Your task to perform on an android device: check battery use Image 0: 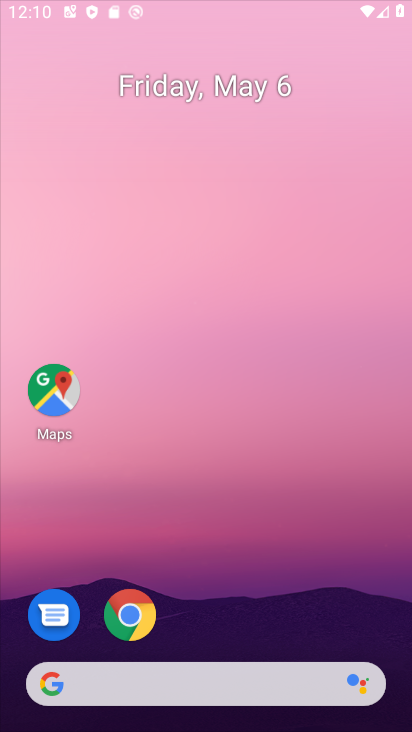
Step 0: drag from (280, 560) to (242, 162)
Your task to perform on an android device: check battery use Image 1: 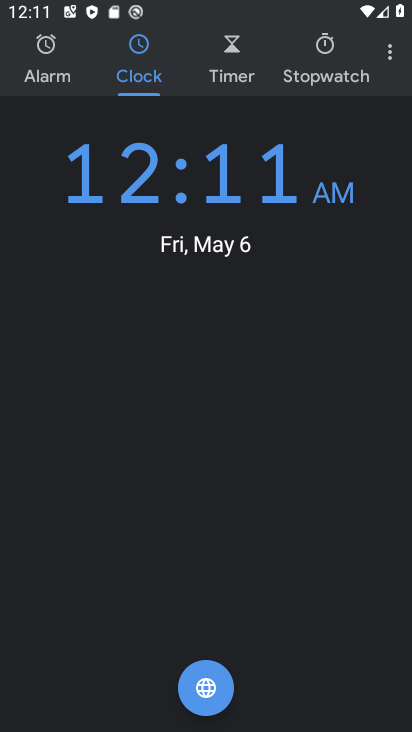
Step 1: press home button
Your task to perform on an android device: check battery use Image 2: 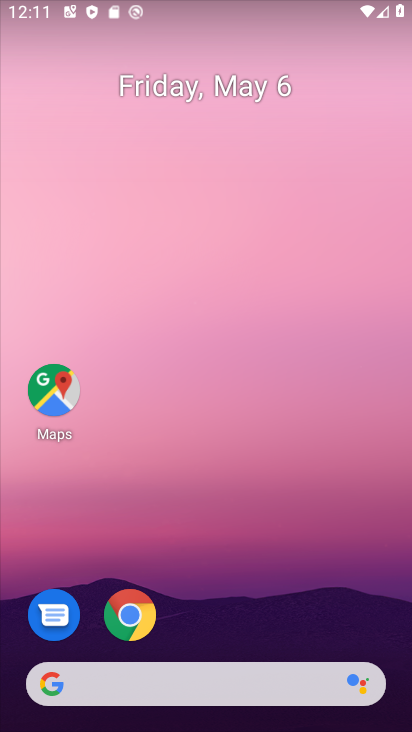
Step 2: drag from (229, 559) to (207, 223)
Your task to perform on an android device: check battery use Image 3: 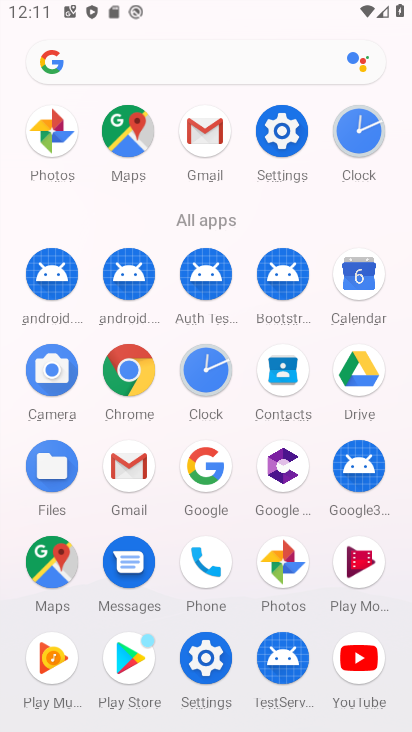
Step 3: click (281, 147)
Your task to perform on an android device: check battery use Image 4: 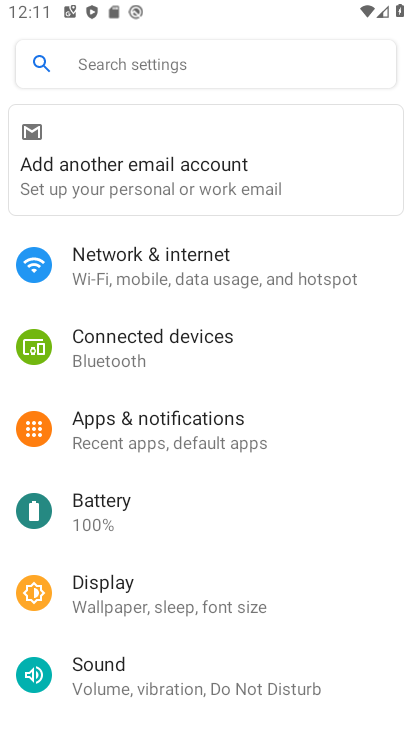
Step 4: click (117, 496)
Your task to perform on an android device: check battery use Image 5: 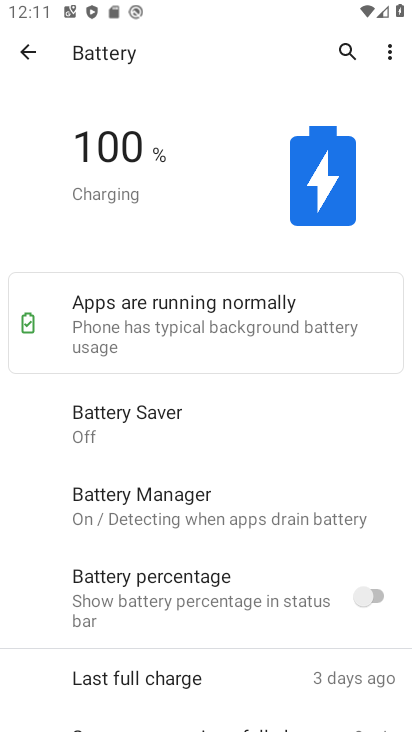
Step 5: task complete